Your task to perform on an android device: find which apps use the phone's location Image 0: 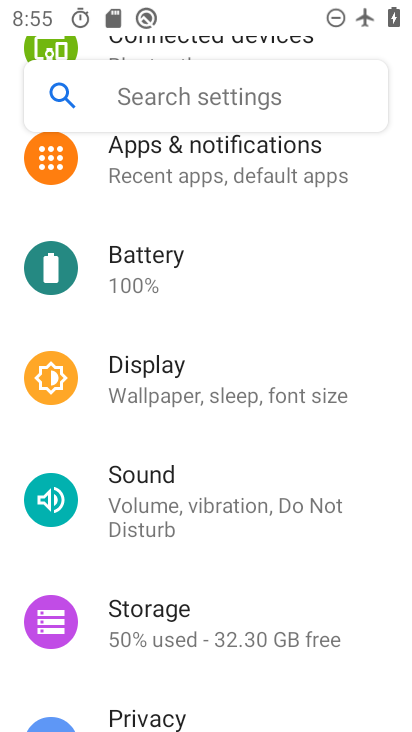
Step 0: press home button
Your task to perform on an android device: find which apps use the phone's location Image 1: 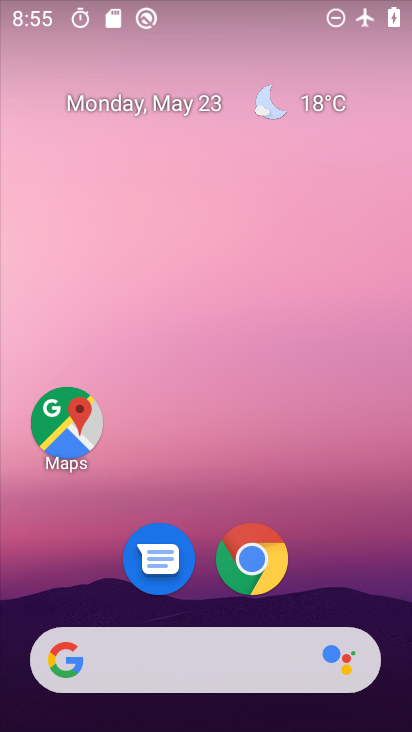
Step 1: drag from (397, 641) to (301, 80)
Your task to perform on an android device: find which apps use the phone's location Image 2: 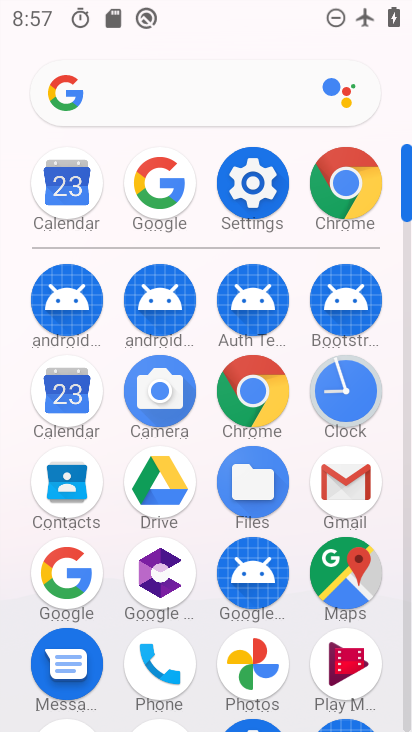
Step 2: click (223, 177)
Your task to perform on an android device: find which apps use the phone's location Image 3: 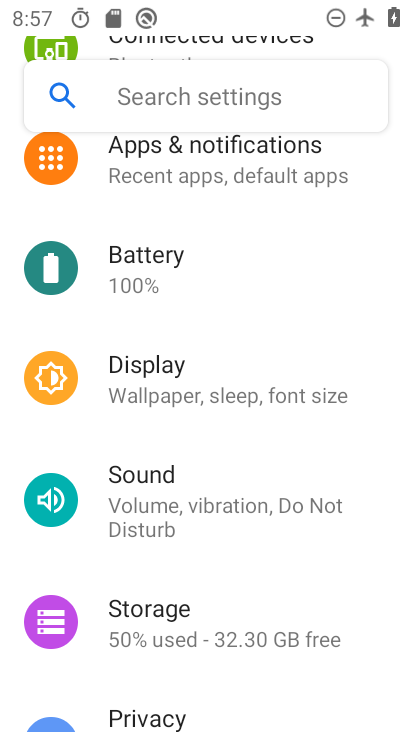
Step 3: drag from (173, 693) to (230, 86)
Your task to perform on an android device: find which apps use the phone's location Image 4: 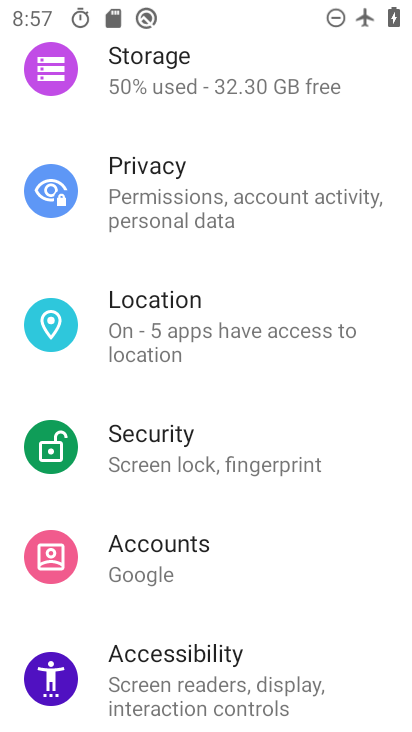
Step 4: click (127, 309)
Your task to perform on an android device: find which apps use the phone's location Image 5: 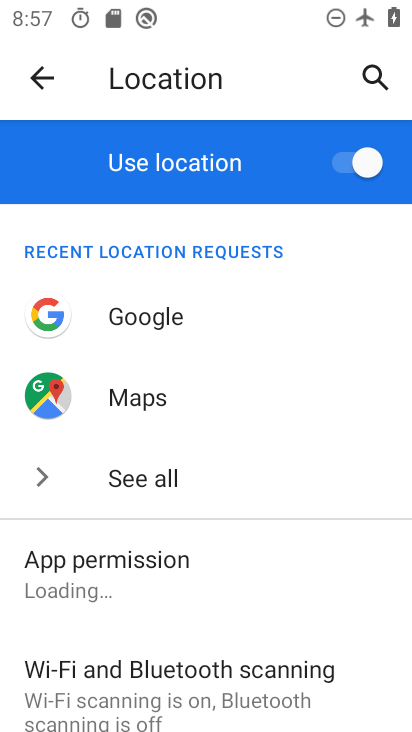
Step 5: click (180, 567)
Your task to perform on an android device: find which apps use the phone's location Image 6: 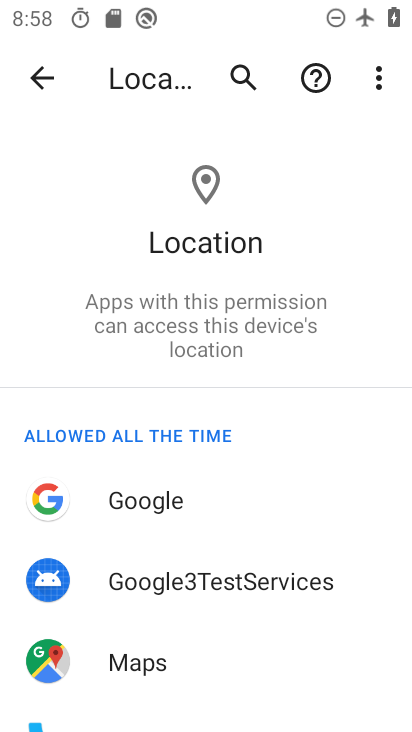
Step 6: drag from (104, 645) to (180, 110)
Your task to perform on an android device: find which apps use the phone's location Image 7: 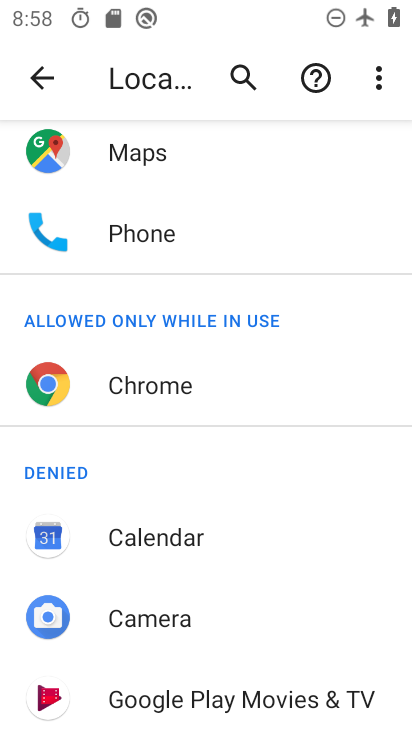
Step 7: click (187, 246)
Your task to perform on an android device: find which apps use the phone's location Image 8: 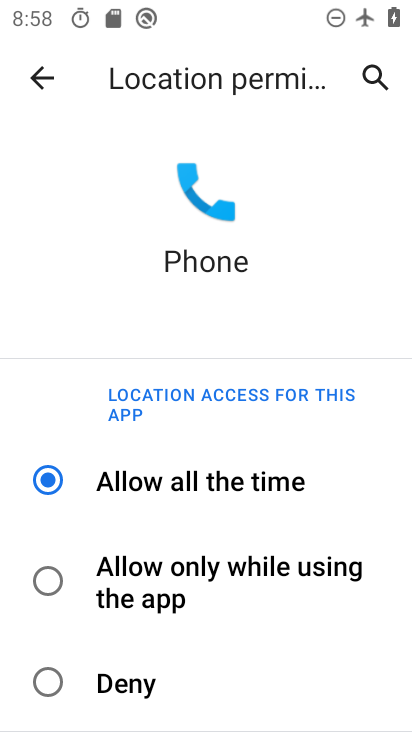
Step 8: task complete